Your task to perform on an android device: Open privacy settings Image 0: 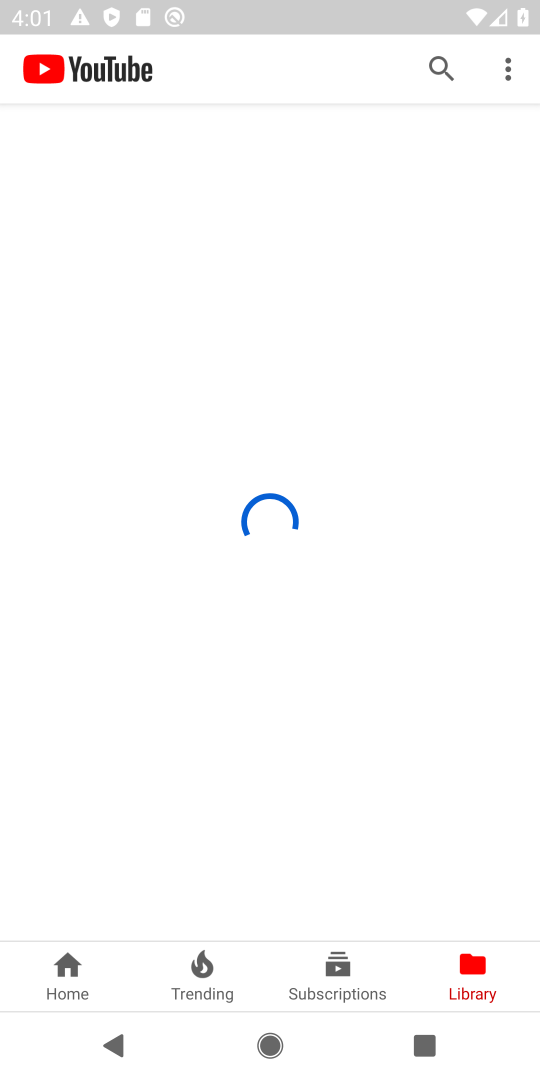
Step 0: press home button
Your task to perform on an android device: Open privacy settings Image 1: 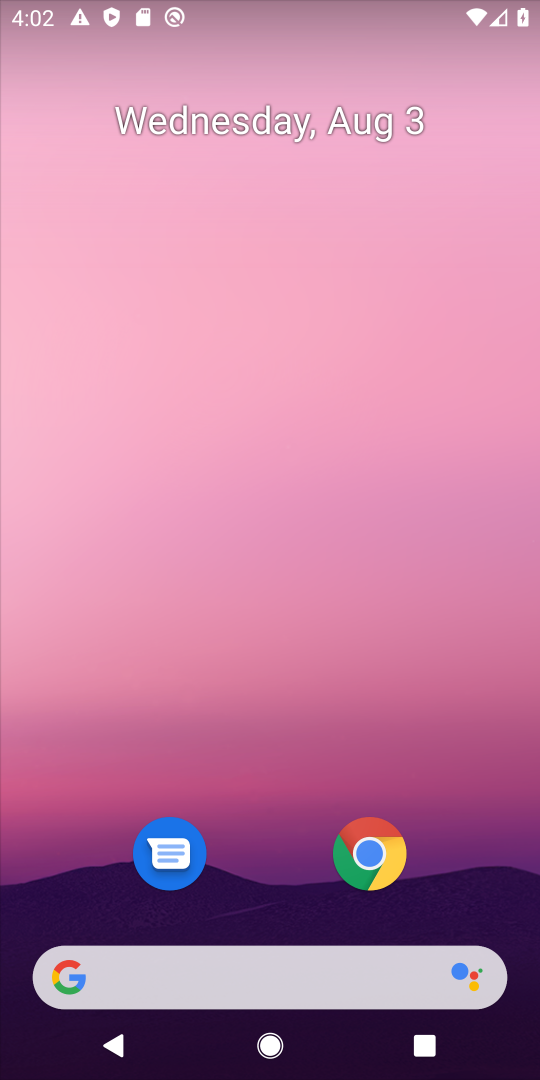
Step 1: drag from (266, 912) to (275, 42)
Your task to perform on an android device: Open privacy settings Image 2: 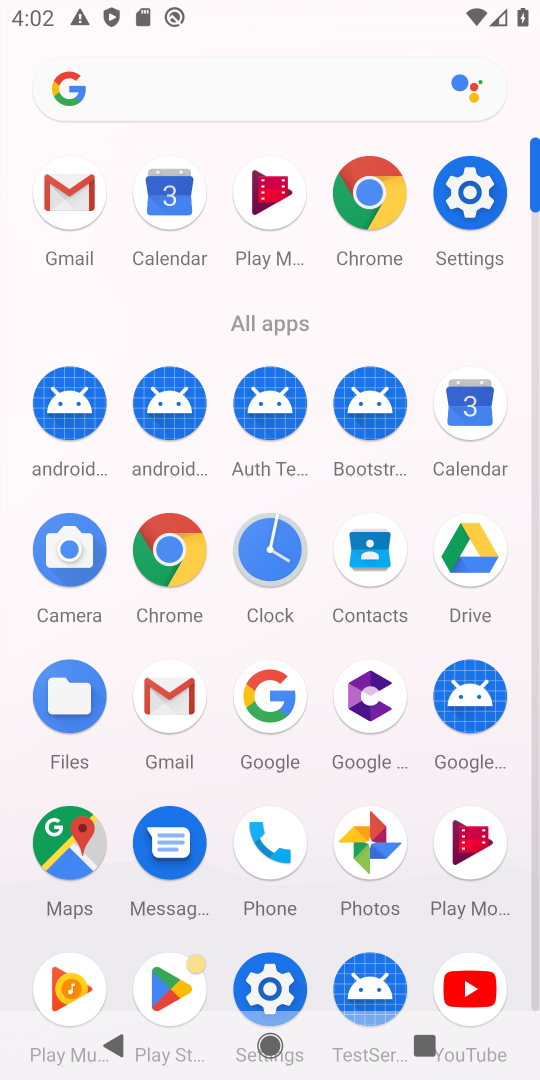
Step 2: click (471, 184)
Your task to perform on an android device: Open privacy settings Image 3: 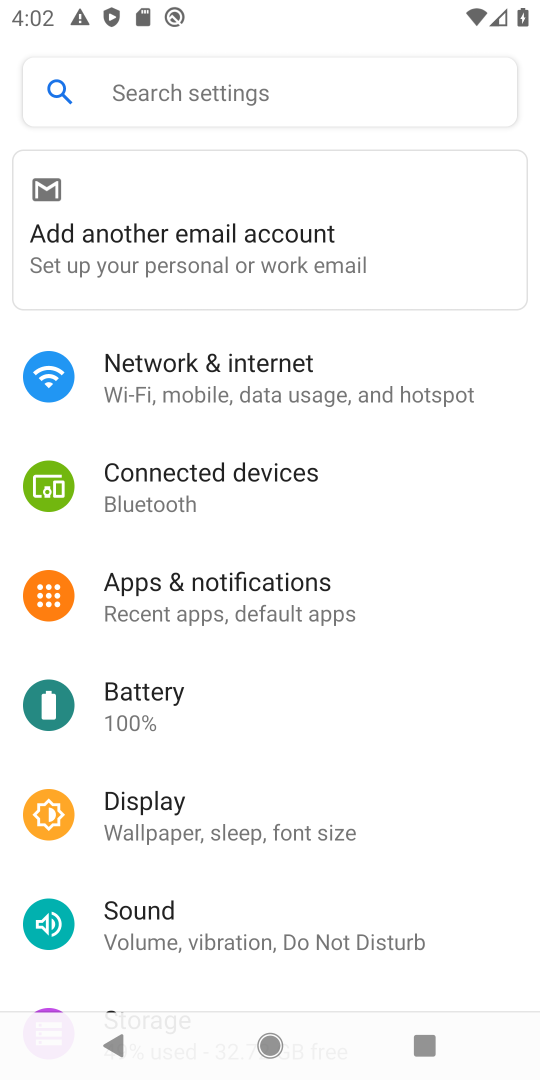
Step 3: drag from (222, 909) to (285, 450)
Your task to perform on an android device: Open privacy settings Image 4: 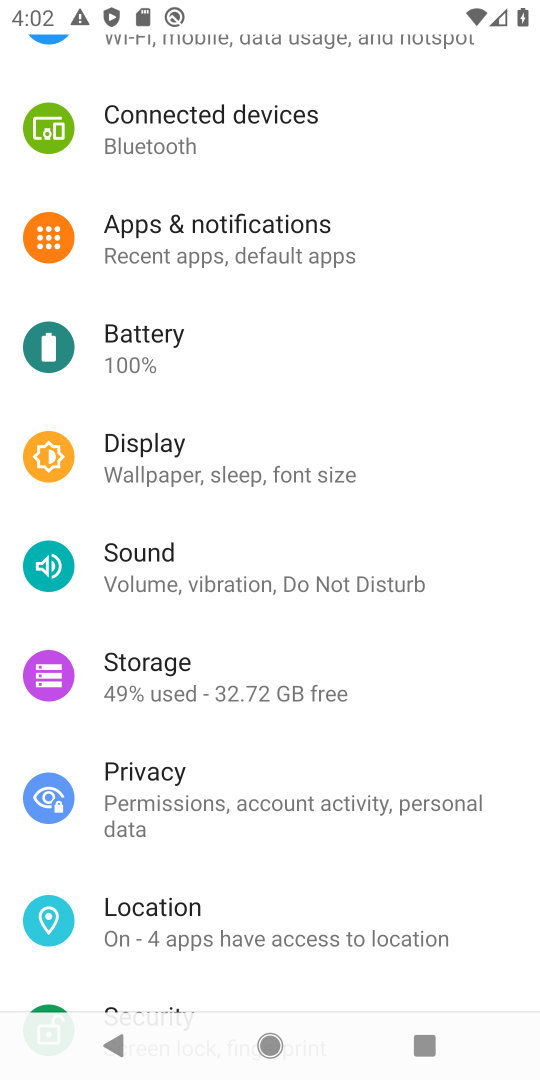
Step 4: click (159, 778)
Your task to perform on an android device: Open privacy settings Image 5: 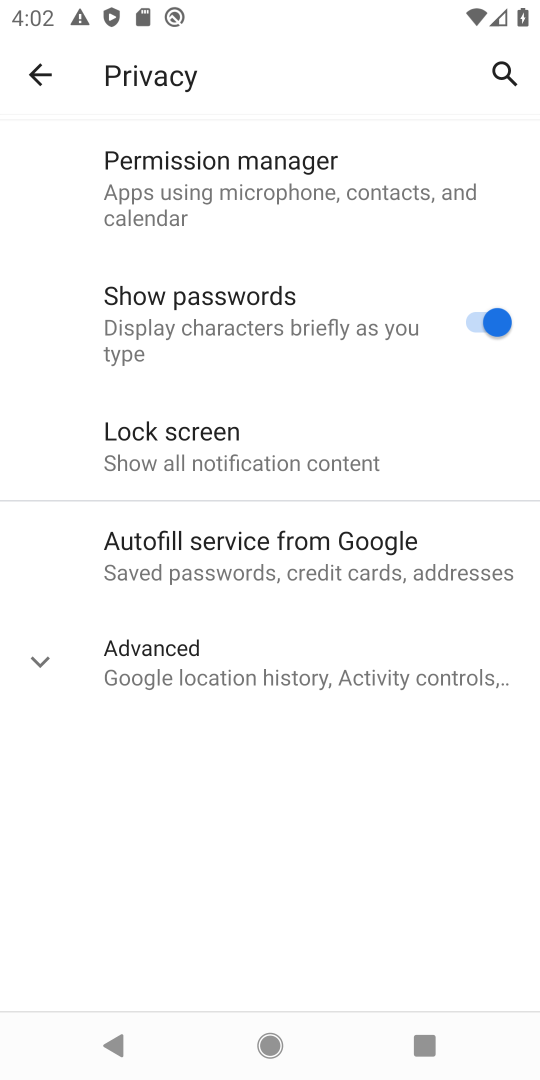
Step 5: task complete